Your task to perform on an android device: Open calendar and show me the fourth week of next month Image 0: 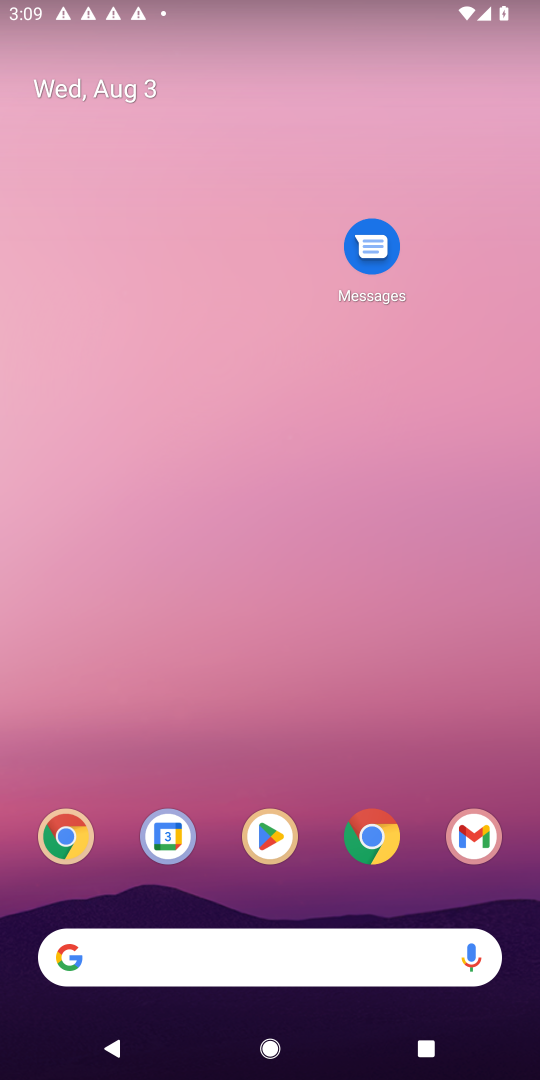
Step 0: click (157, 848)
Your task to perform on an android device: Open calendar and show me the fourth week of next month Image 1: 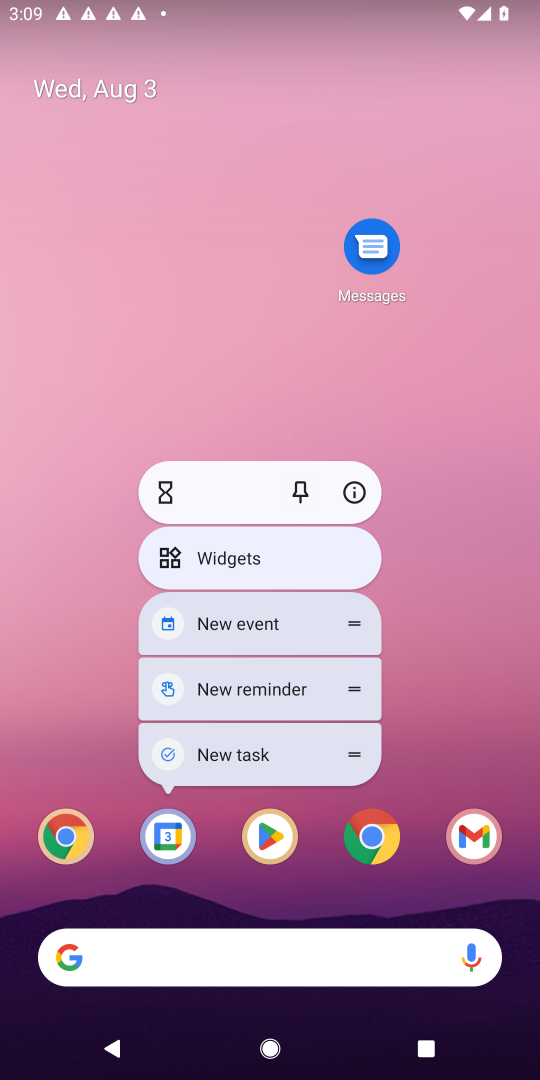
Step 1: click (174, 829)
Your task to perform on an android device: Open calendar and show me the fourth week of next month Image 2: 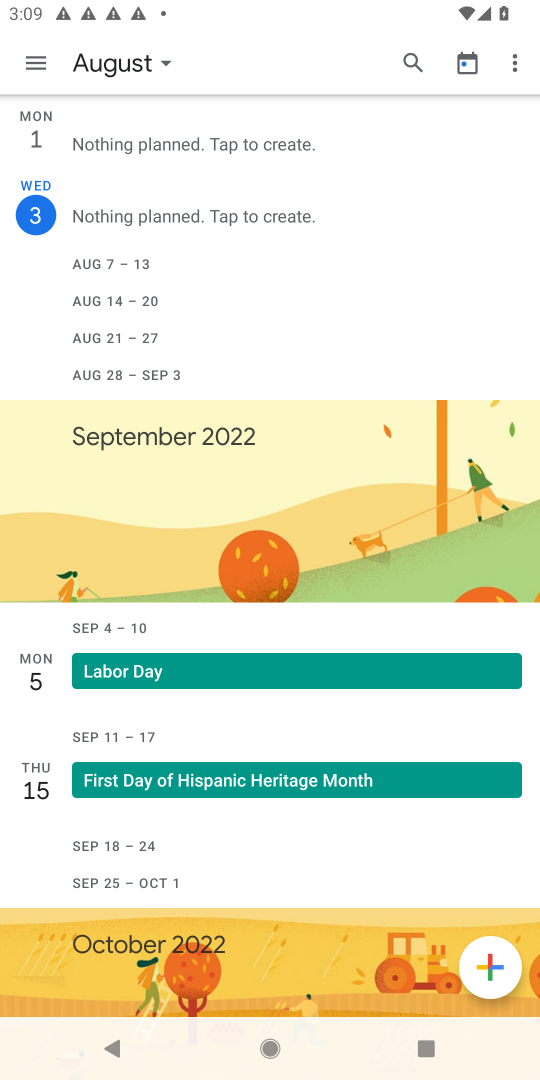
Step 2: click (163, 57)
Your task to perform on an android device: Open calendar and show me the fourth week of next month Image 3: 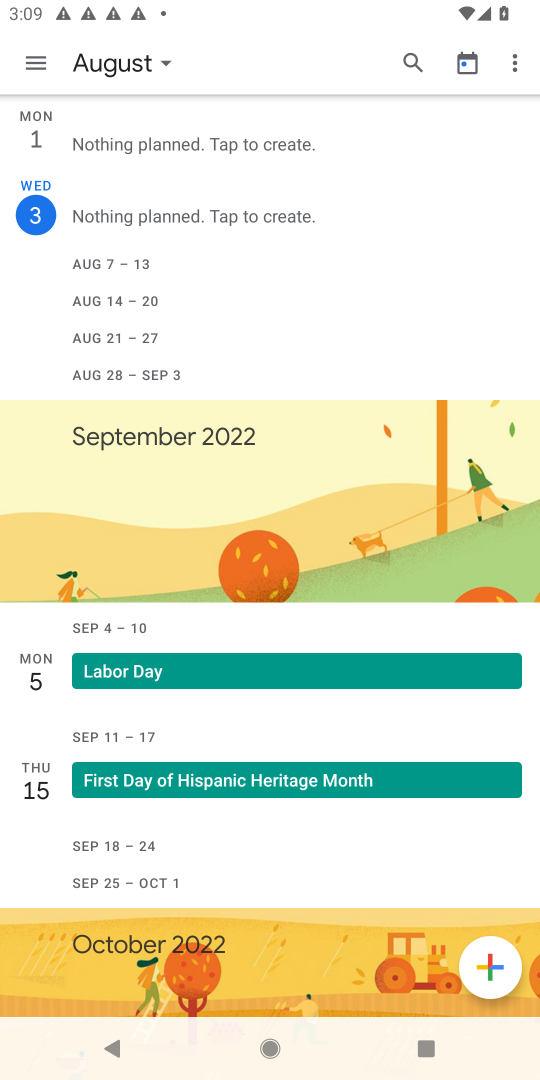
Step 3: click (118, 64)
Your task to perform on an android device: Open calendar and show me the fourth week of next month Image 4: 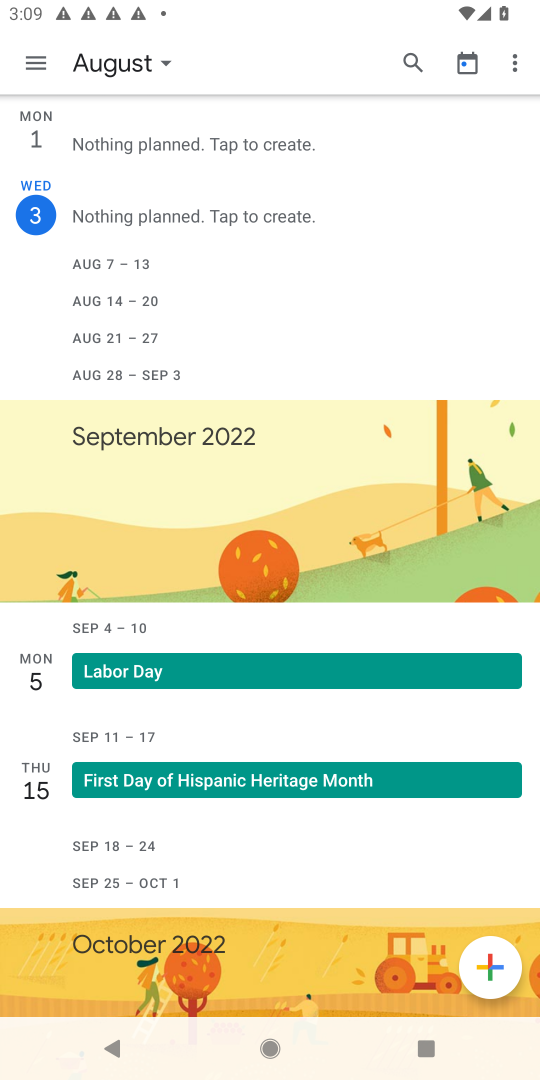
Step 4: click (158, 61)
Your task to perform on an android device: Open calendar and show me the fourth week of next month Image 5: 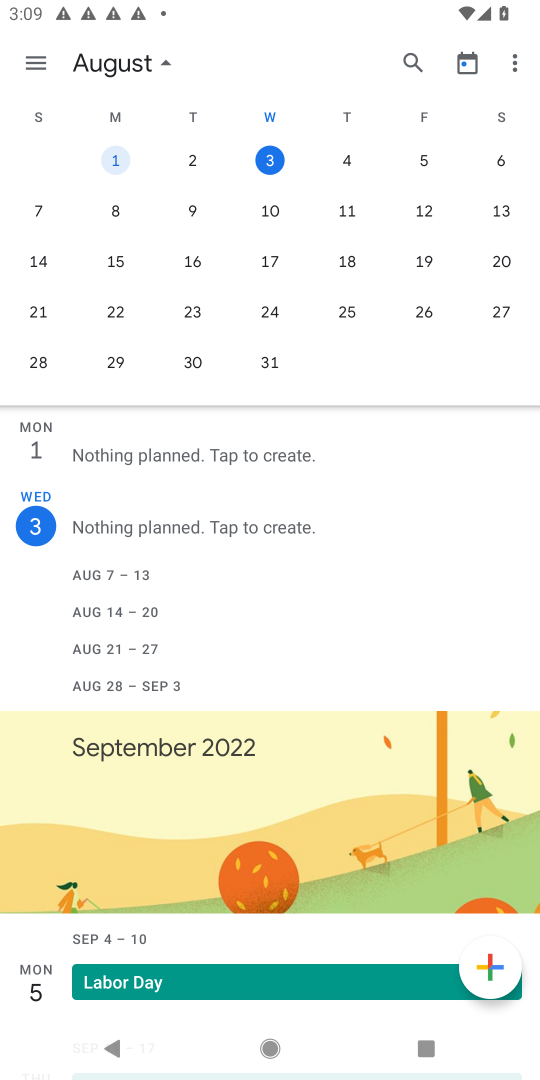
Step 5: drag from (207, 224) to (157, 210)
Your task to perform on an android device: Open calendar and show me the fourth week of next month Image 6: 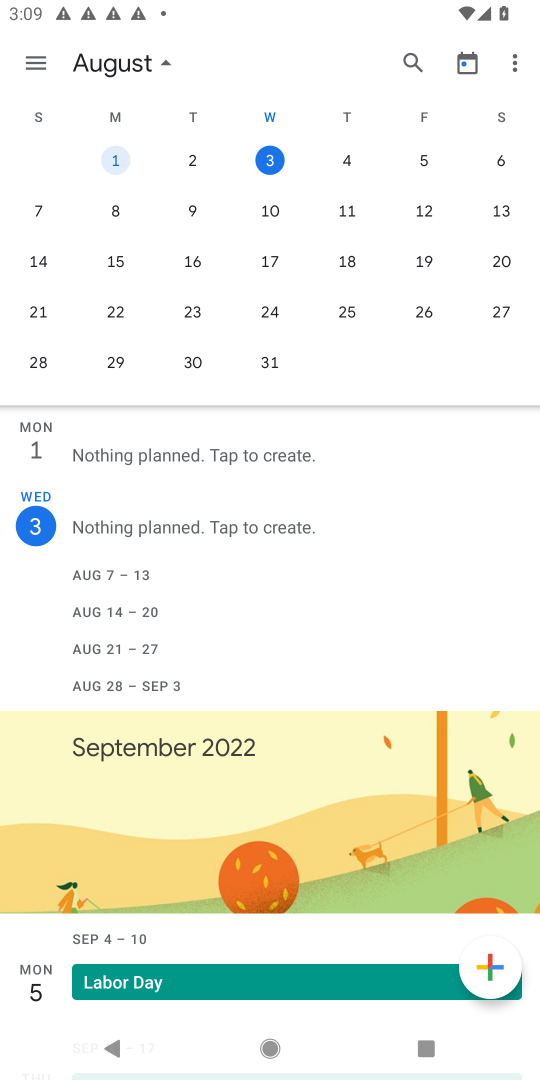
Step 6: click (107, 232)
Your task to perform on an android device: Open calendar and show me the fourth week of next month Image 7: 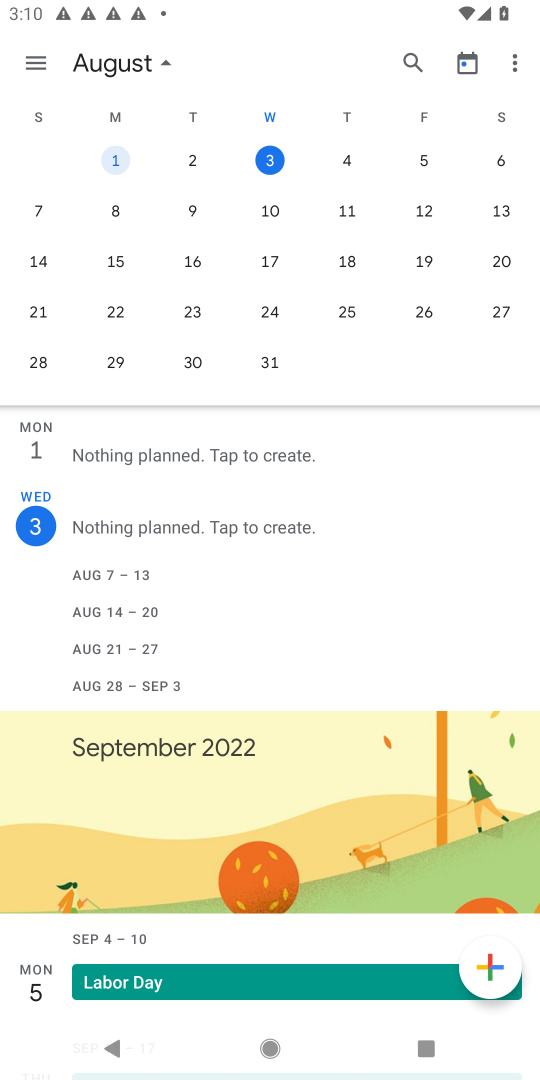
Step 7: drag from (482, 166) to (0, 223)
Your task to perform on an android device: Open calendar and show me the fourth week of next month Image 8: 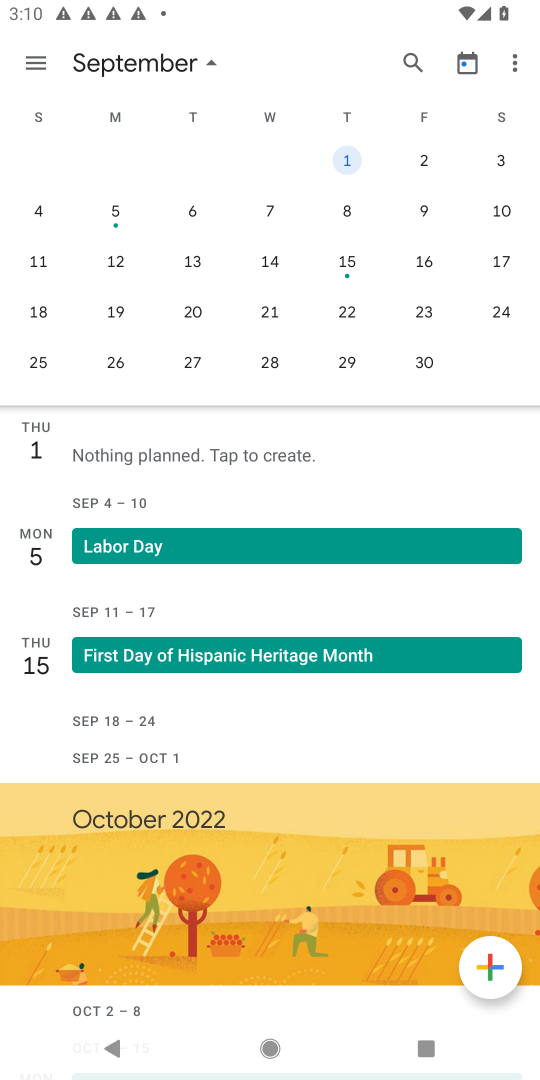
Step 8: click (117, 354)
Your task to perform on an android device: Open calendar and show me the fourth week of next month Image 9: 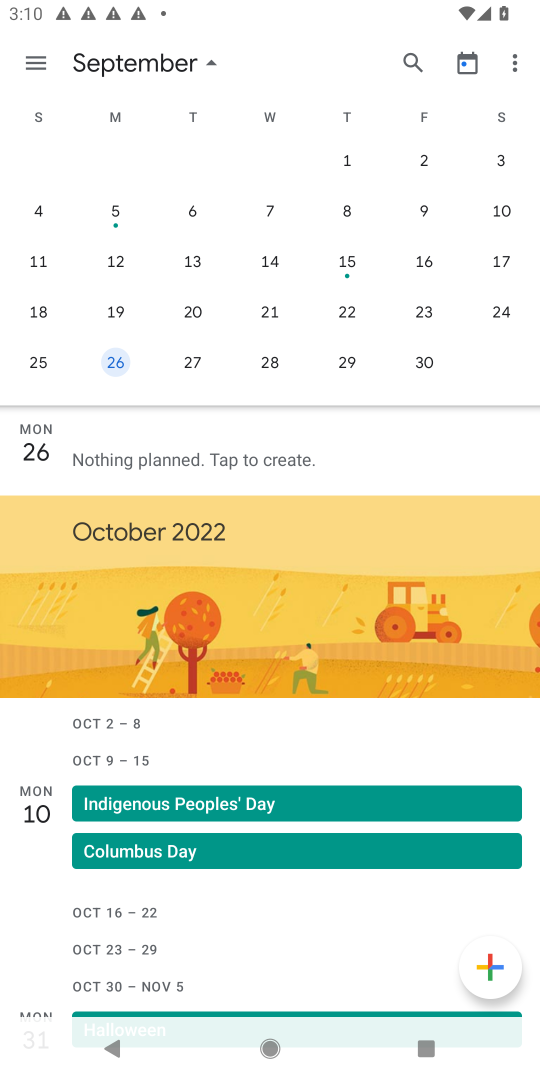
Step 9: task complete